Your task to perform on an android device: refresh tabs in the chrome app Image 0: 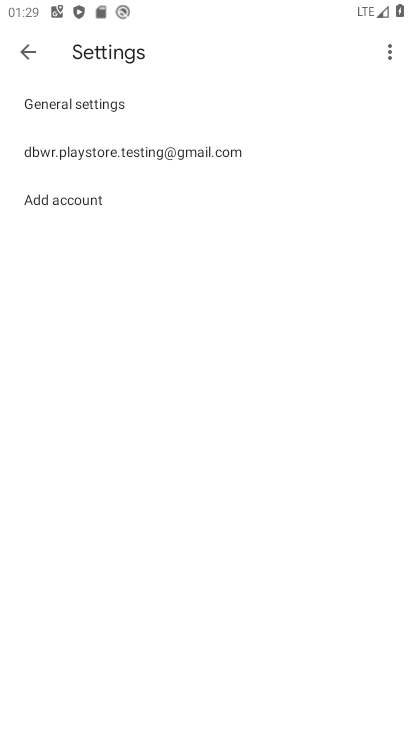
Step 0: press home button
Your task to perform on an android device: refresh tabs in the chrome app Image 1: 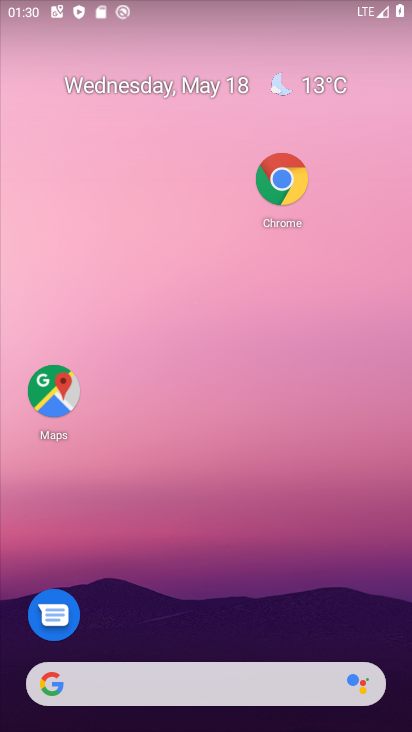
Step 1: click (282, 186)
Your task to perform on an android device: refresh tabs in the chrome app Image 2: 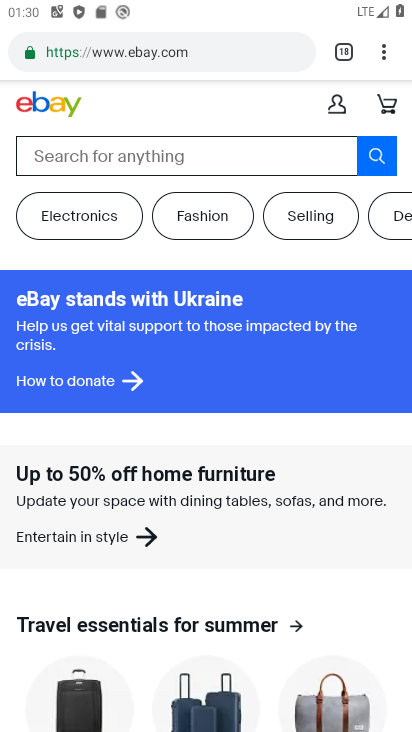
Step 2: click (382, 67)
Your task to perform on an android device: refresh tabs in the chrome app Image 3: 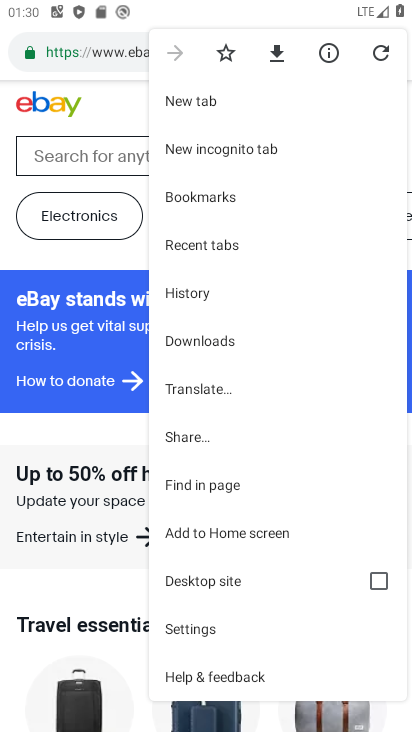
Step 3: click (374, 51)
Your task to perform on an android device: refresh tabs in the chrome app Image 4: 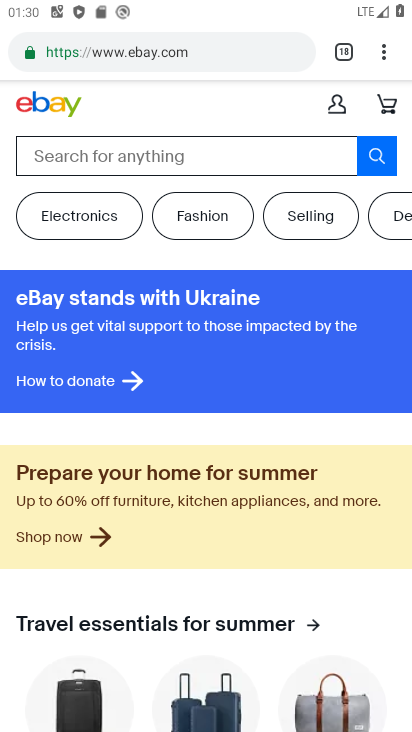
Step 4: task complete